Your task to perform on an android device: Open the stopwatch Image 0: 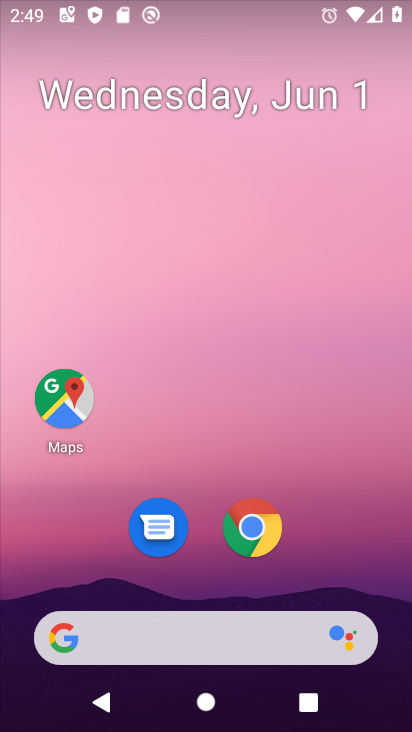
Step 0: drag from (335, 566) to (258, 59)
Your task to perform on an android device: Open the stopwatch Image 1: 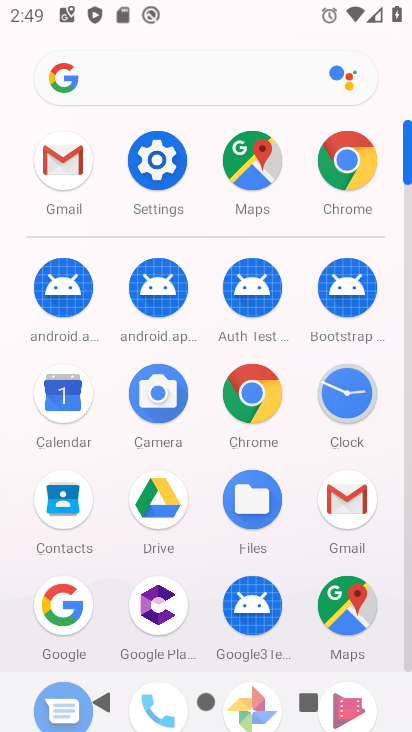
Step 1: click (345, 395)
Your task to perform on an android device: Open the stopwatch Image 2: 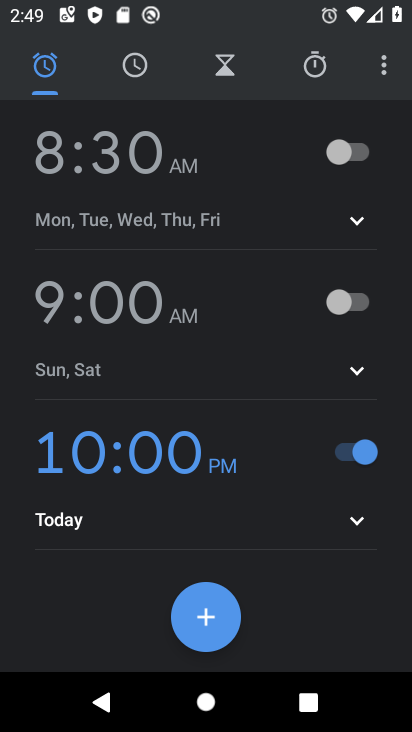
Step 2: click (317, 69)
Your task to perform on an android device: Open the stopwatch Image 3: 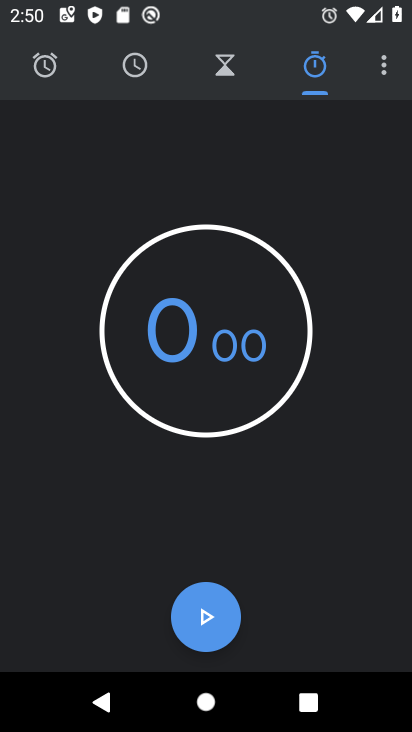
Step 3: task complete